Your task to perform on an android device: open chrome and create a bookmark for the current page Image 0: 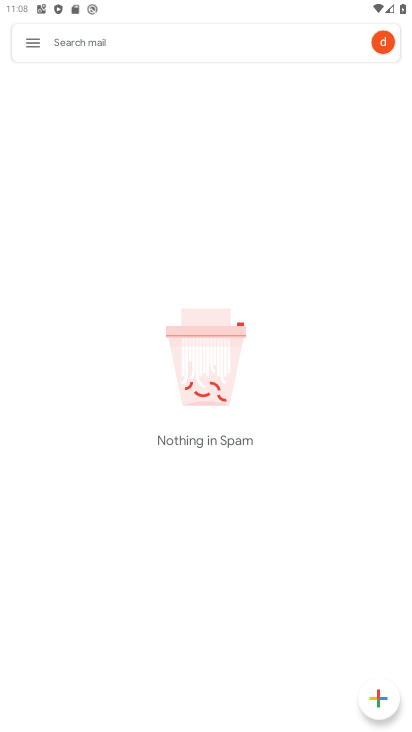
Step 0: press home button
Your task to perform on an android device: open chrome and create a bookmark for the current page Image 1: 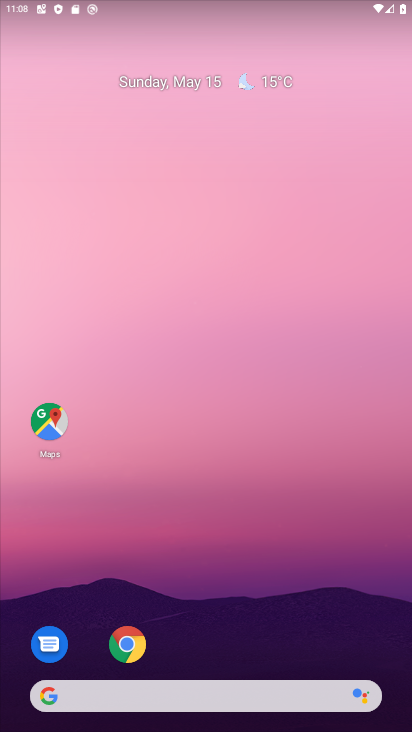
Step 1: click (139, 658)
Your task to perform on an android device: open chrome and create a bookmark for the current page Image 2: 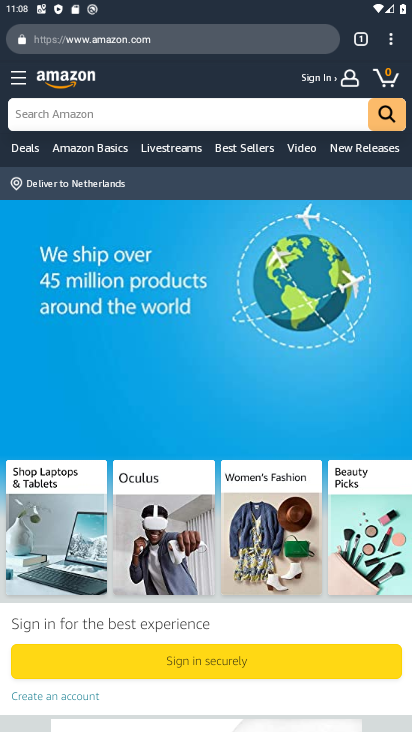
Step 2: click (386, 45)
Your task to perform on an android device: open chrome and create a bookmark for the current page Image 3: 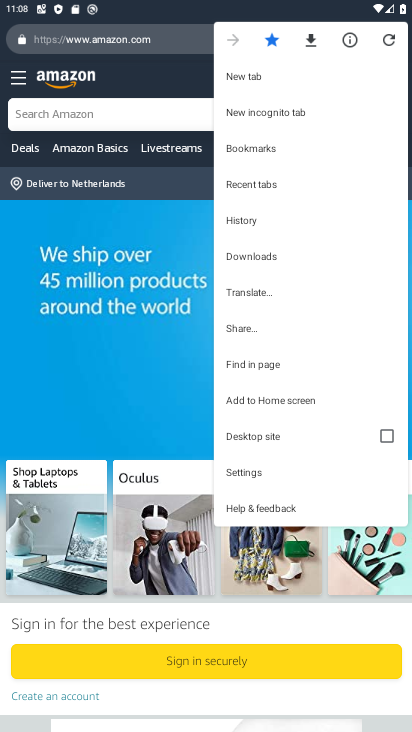
Step 3: task complete